Your task to perform on an android device: Do I have any events tomorrow? Image 0: 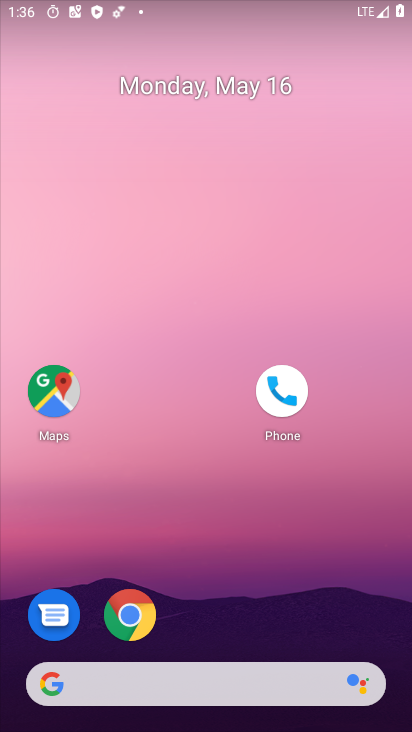
Step 0: click (329, 428)
Your task to perform on an android device: Do I have any events tomorrow? Image 1: 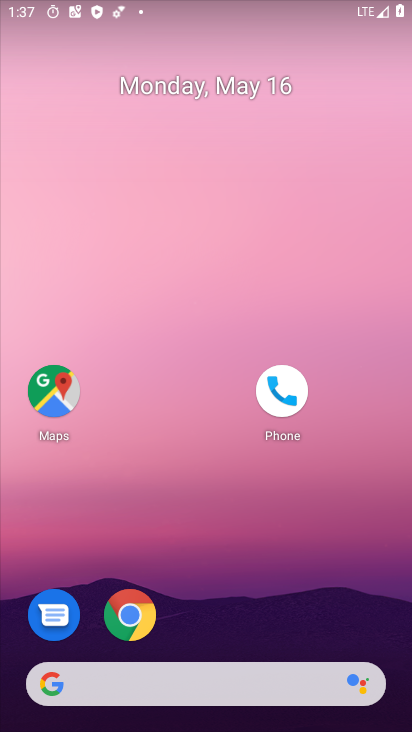
Step 1: drag from (187, 653) to (220, 127)
Your task to perform on an android device: Do I have any events tomorrow? Image 2: 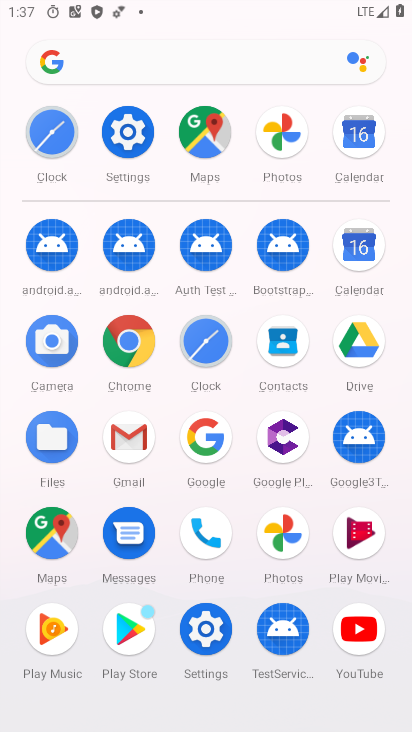
Step 2: click (368, 263)
Your task to perform on an android device: Do I have any events tomorrow? Image 3: 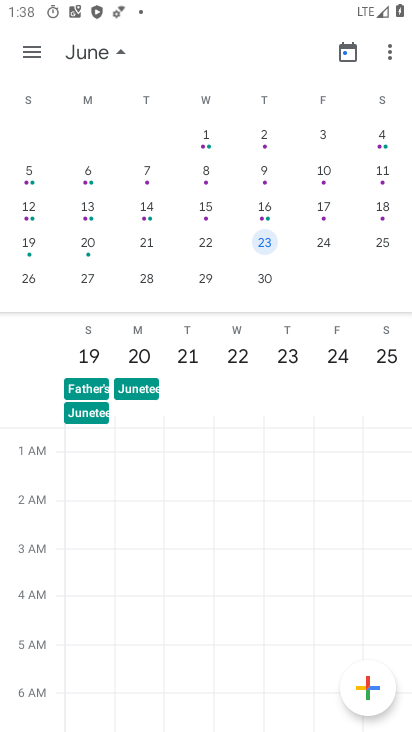
Step 3: drag from (98, 238) to (410, 190)
Your task to perform on an android device: Do I have any events tomorrow? Image 4: 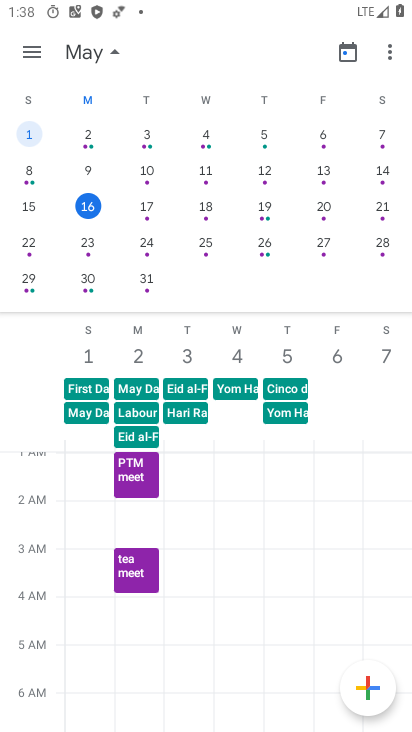
Step 4: click (145, 205)
Your task to perform on an android device: Do I have any events tomorrow? Image 5: 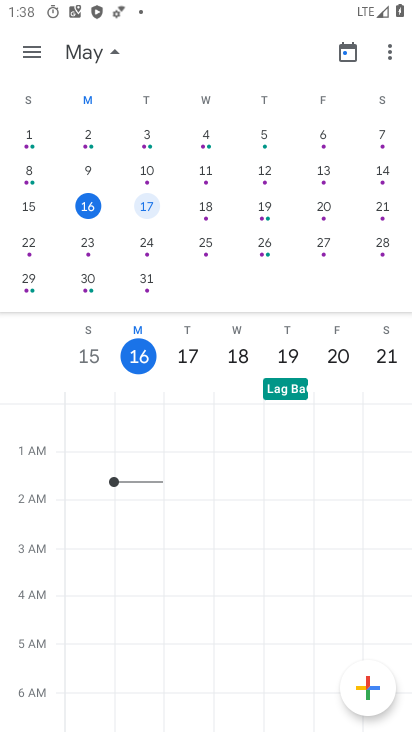
Step 5: click (137, 199)
Your task to perform on an android device: Do I have any events tomorrow? Image 6: 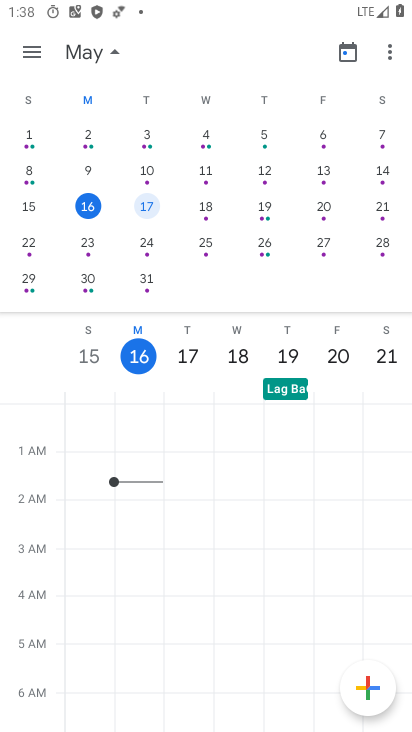
Step 6: task complete